Your task to perform on an android device: choose inbox layout in the gmail app Image 0: 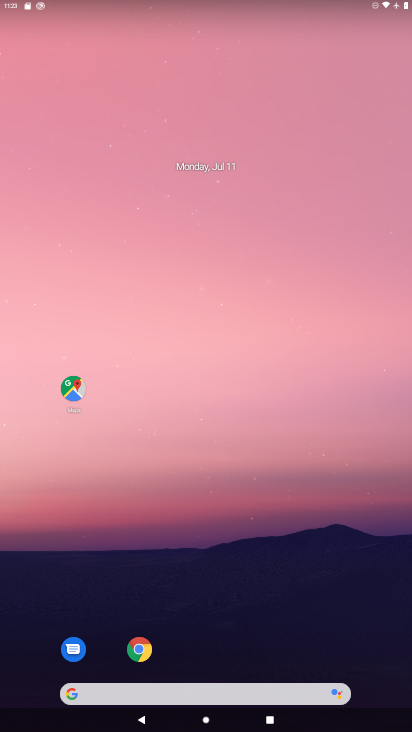
Step 0: drag from (272, 632) to (239, 131)
Your task to perform on an android device: choose inbox layout in the gmail app Image 1: 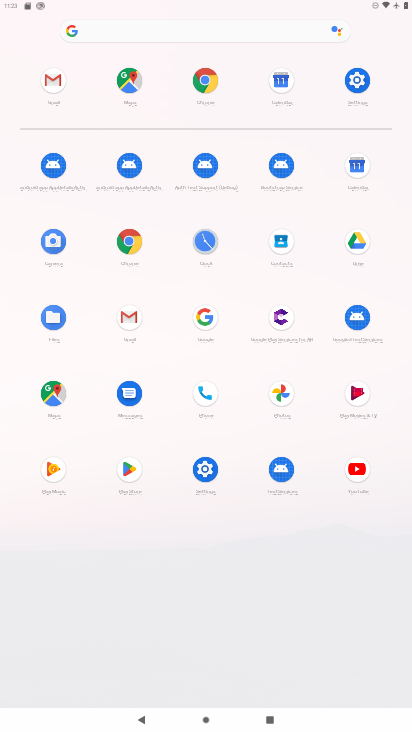
Step 1: click (52, 76)
Your task to perform on an android device: choose inbox layout in the gmail app Image 2: 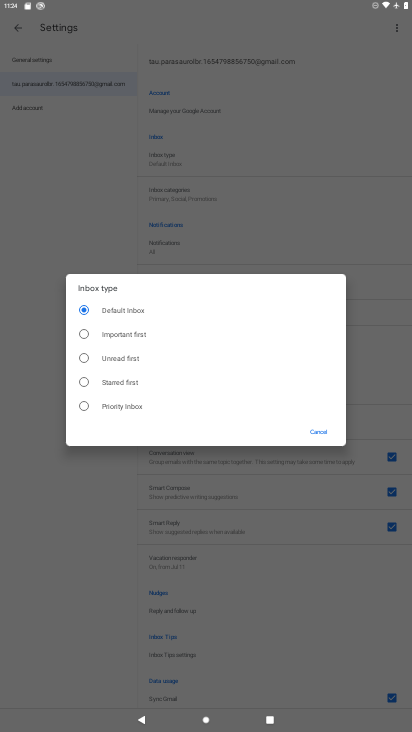
Step 2: task complete